Your task to perform on an android device: turn vacation reply on in the gmail app Image 0: 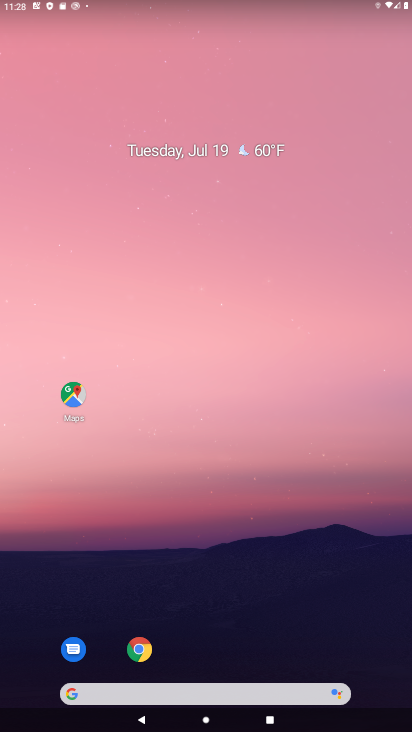
Step 0: drag from (205, 687) to (181, 7)
Your task to perform on an android device: turn vacation reply on in the gmail app Image 1: 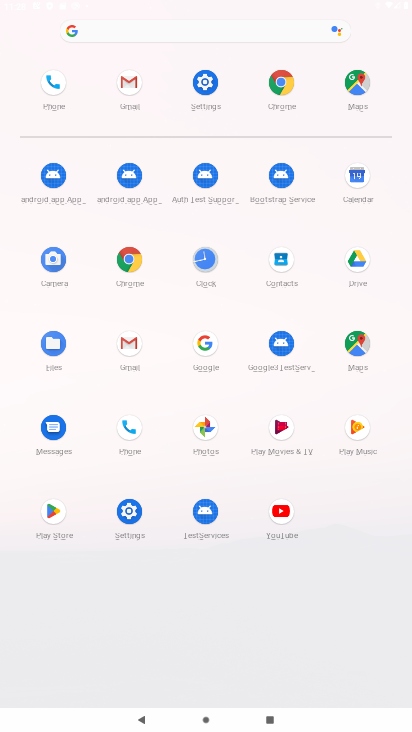
Step 1: click (133, 350)
Your task to perform on an android device: turn vacation reply on in the gmail app Image 2: 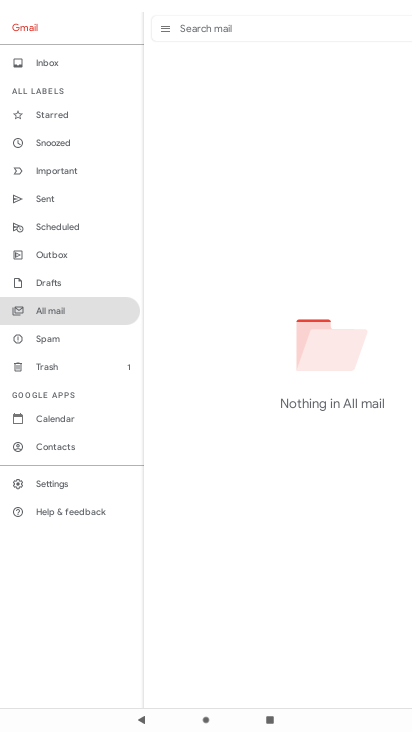
Step 2: click (63, 481)
Your task to perform on an android device: turn vacation reply on in the gmail app Image 3: 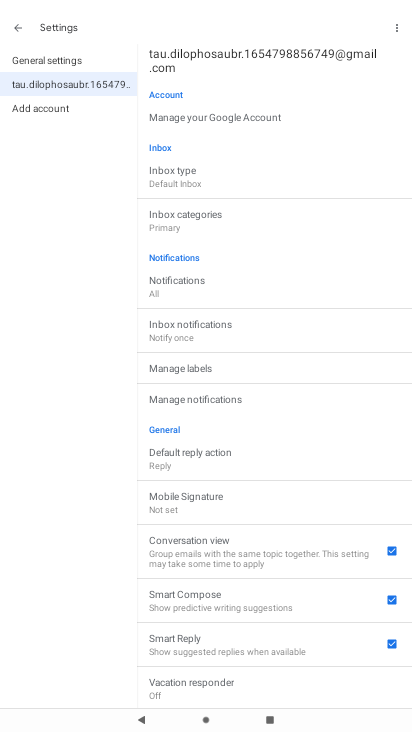
Step 3: click (247, 676)
Your task to perform on an android device: turn vacation reply on in the gmail app Image 4: 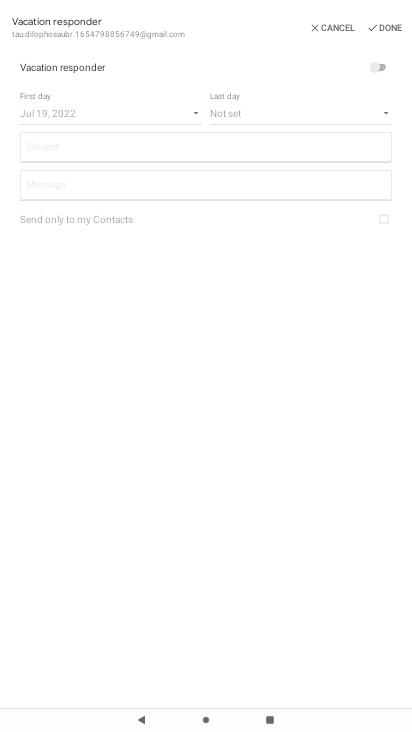
Step 4: click (377, 63)
Your task to perform on an android device: turn vacation reply on in the gmail app Image 5: 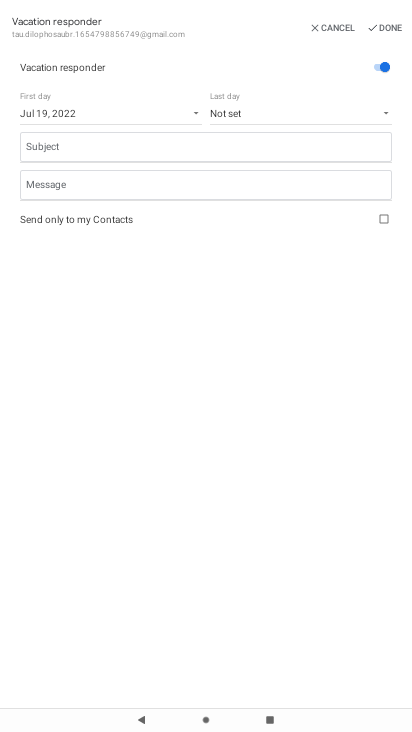
Step 5: click (379, 24)
Your task to perform on an android device: turn vacation reply on in the gmail app Image 6: 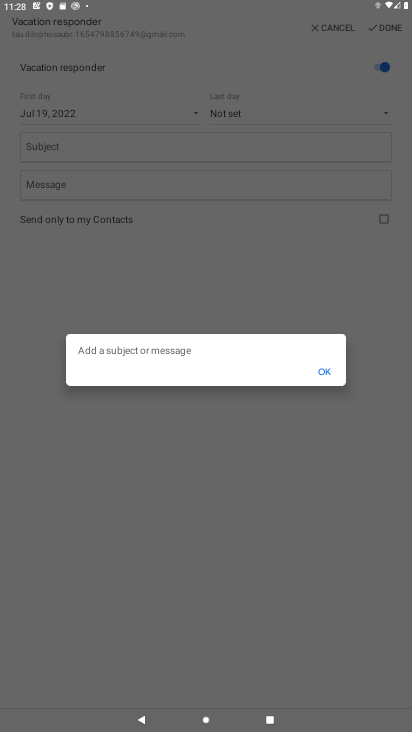
Step 6: click (322, 375)
Your task to perform on an android device: turn vacation reply on in the gmail app Image 7: 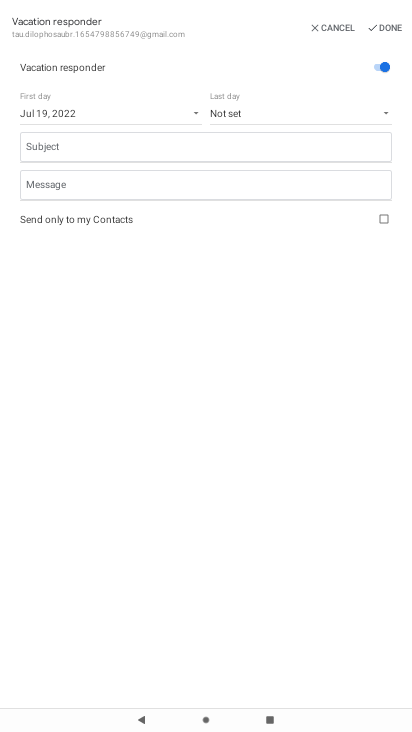
Step 7: task complete